Your task to perform on an android device: turn on javascript in the chrome app Image 0: 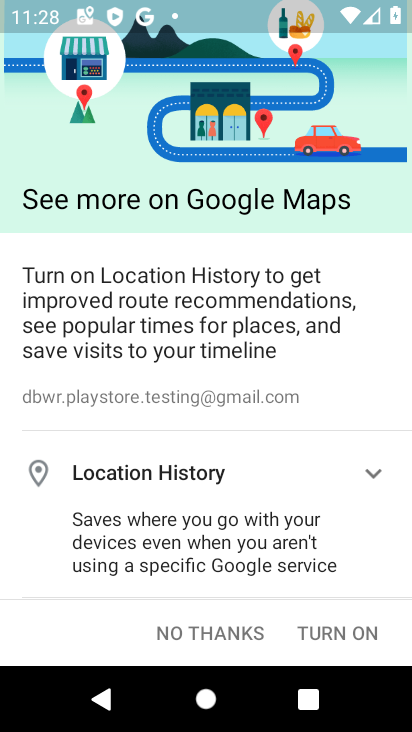
Step 0: press home button
Your task to perform on an android device: turn on javascript in the chrome app Image 1: 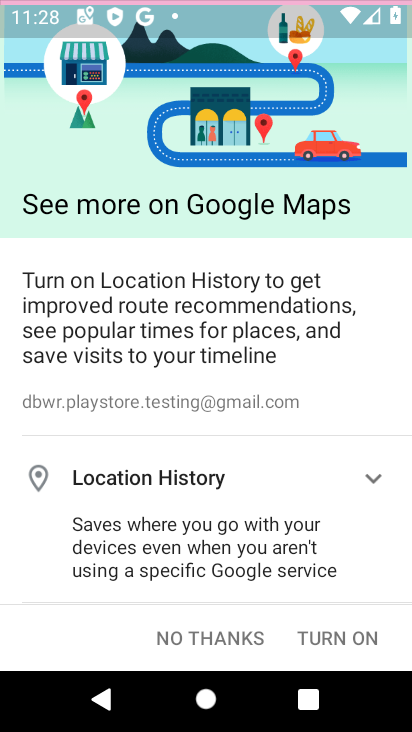
Step 1: press home button
Your task to perform on an android device: turn on javascript in the chrome app Image 2: 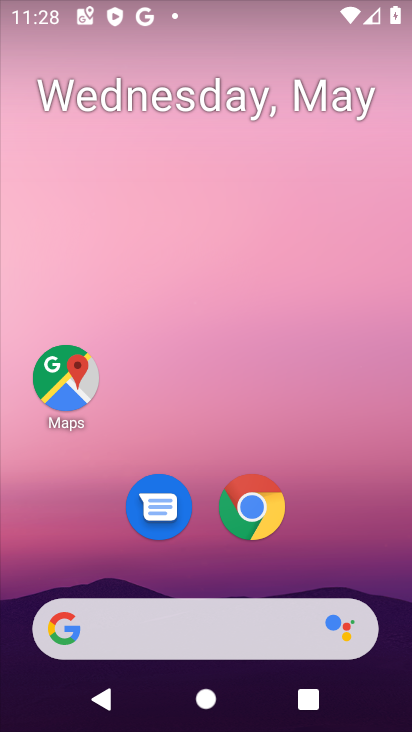
Step 2: click (248, 498)
Your task to perform on an android device: turn on javascript in the chrome app Image 3: 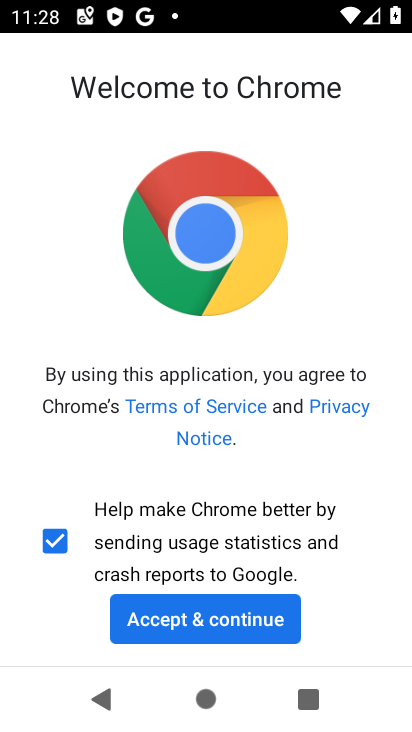
Step 3: click (222, 610)
Your task to perform on an android device: turn on javascript in the chrome app Image 4: 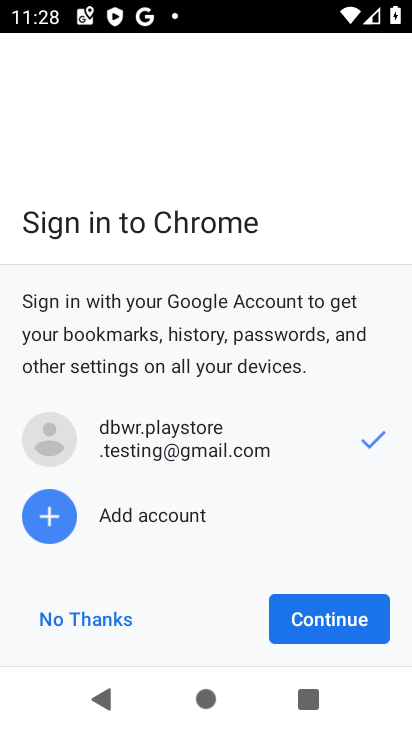
Step 4: click (344, 638)
Your task to perform on an android device: turn on javascript in the chrome app Image 5: 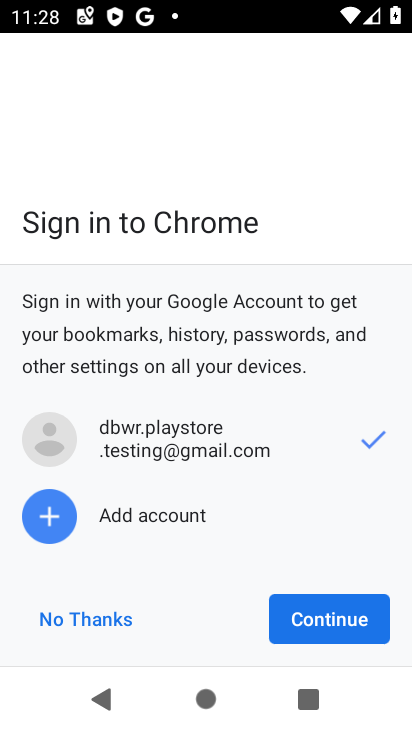
Step 5: click (344, 638)
Your task to perform on an android device: turn on javascript in the chrome app Image 6: 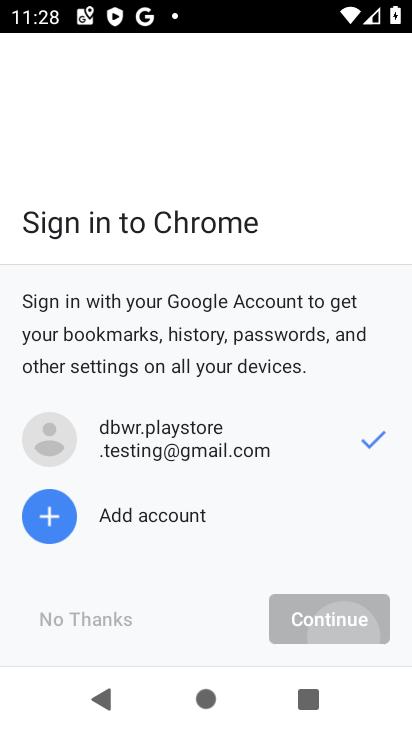
Step 6: click (344, 638)
Your task to perform on an android device: turn on javascript in the chrome app Image 7: 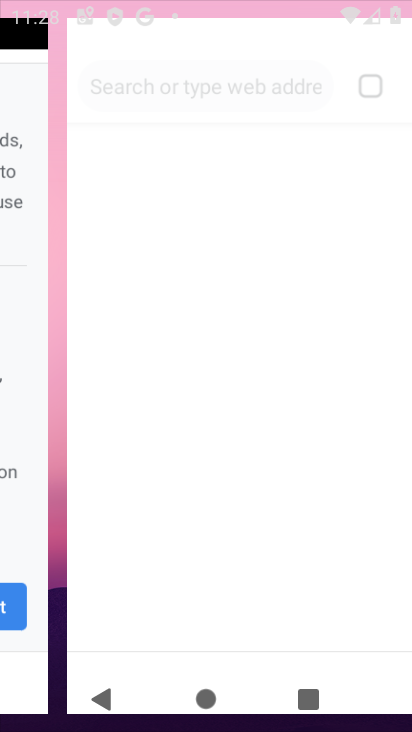
Step 7: click (344, 638)
Your task to perform on an android device: turn on javascript in the chrome app Image 8: 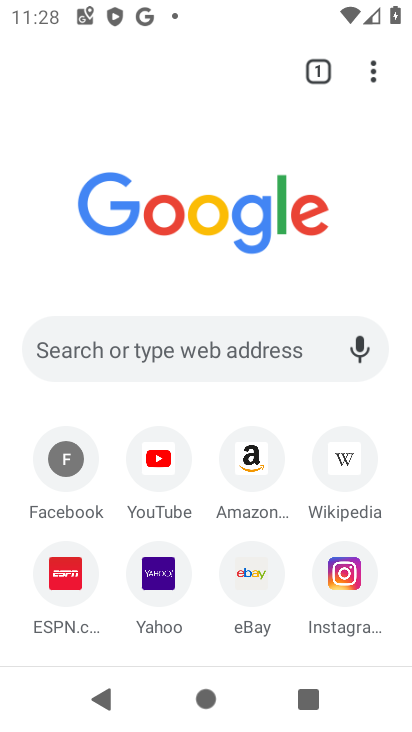
Step 8: drag from (306, 221) to (280, 266)
Your task to perform on an android device: turn on javascript in the chrome app Image 9: 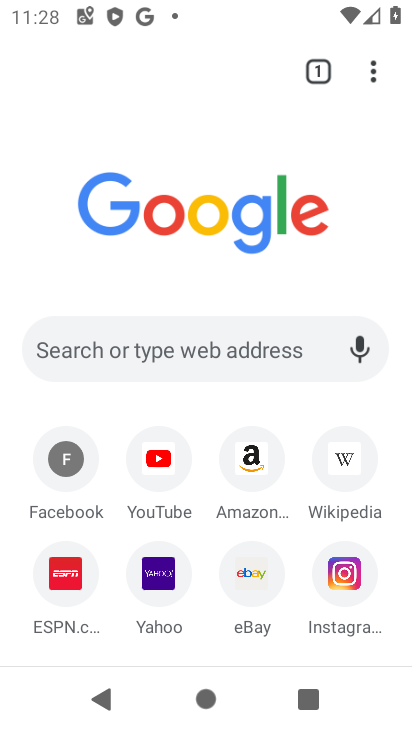
Step 9: drag from (376, 78) to (120, 515)
Your task to perform on an android device: turn on javascript in the chrome app Image 10: 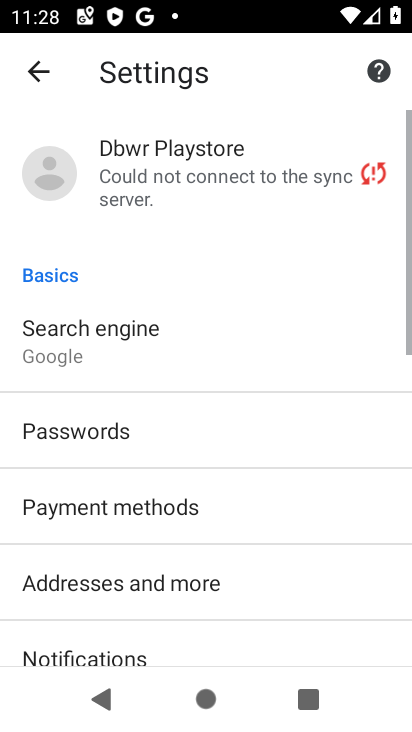
Step 10: drag from (120, 515) to (147, 172)
Your task to perform on an android device: turn on javascript in the chrome app Image 11: 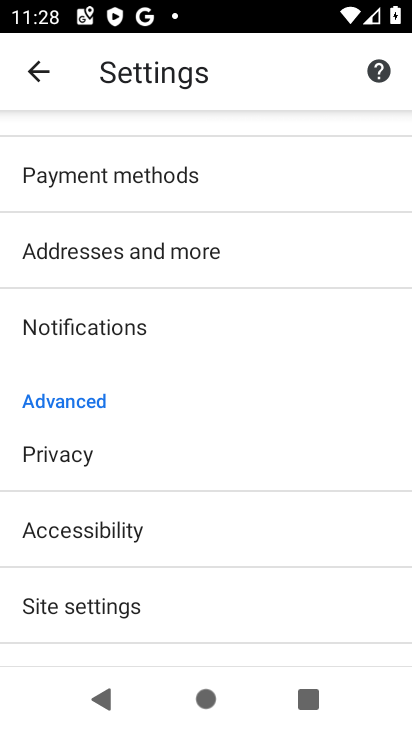
Step 11: click (121, 589)
Your task to perform on an android device: turn on javascript in the chrome app Image 12: 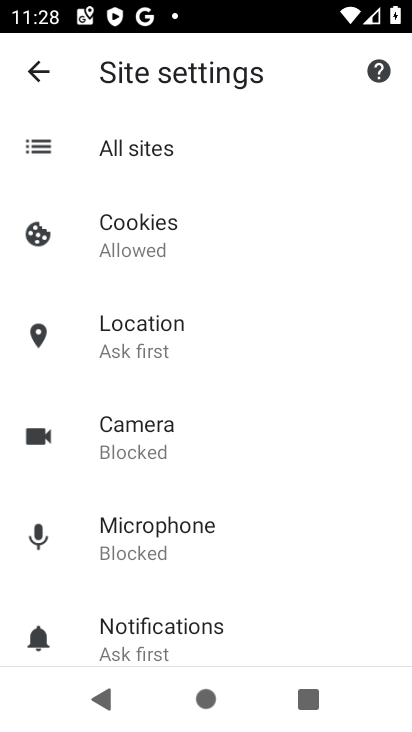
Step 12: drag from (121, 575) to (142, 175)
Your task to perform on an android device: turn on javascript in the chrome app Image 13: 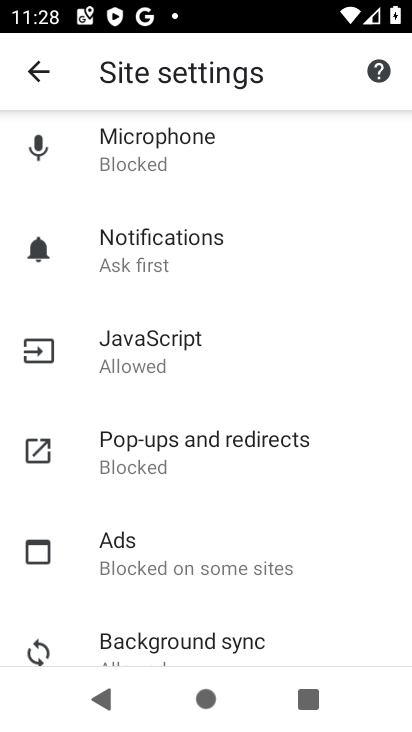
Step 13: click (122, 354)
Your task to perform on an android device: turn on javascript in the chrome app Image 14: 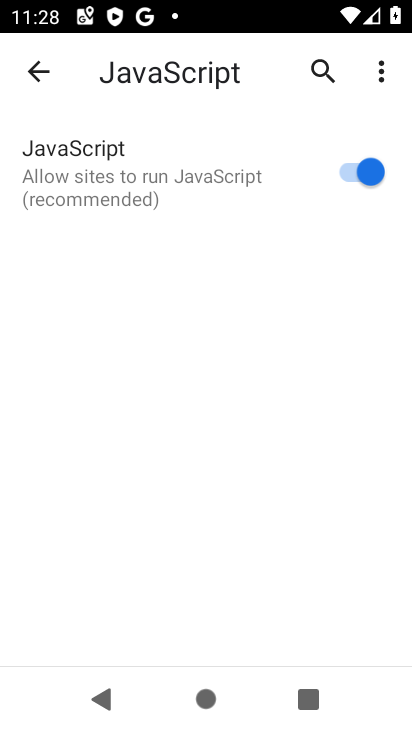
Step 14: task complete